Your task to perform on an android device: Go to accessibility settings Image 0: 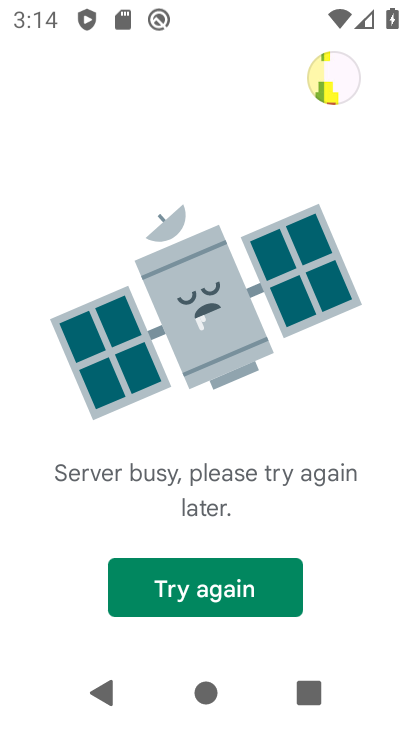
Step 0: press home button
Your task to perform on an android device: Go to accessibility settings Image 1: 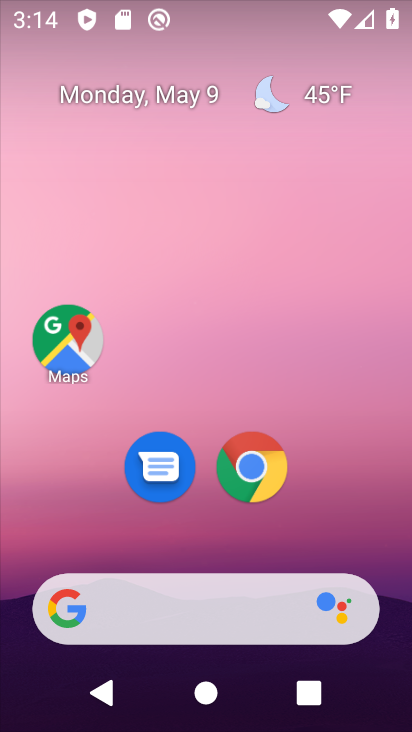
Step 1: drag from (336, 506) to (344, 138)
Your task to perform on an android device: Go to accessibility settings Image 2: 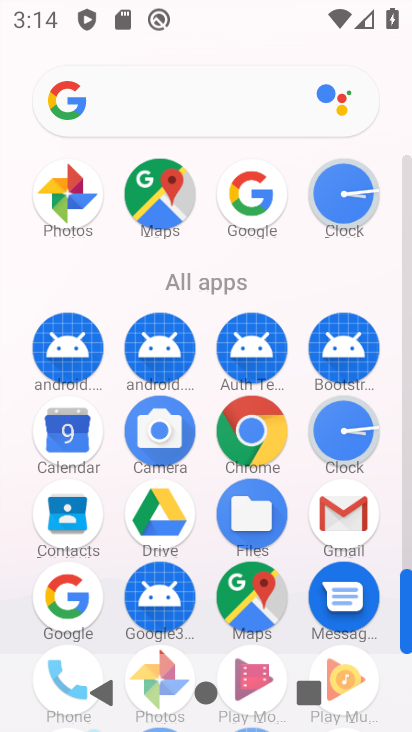
Step 2: drag from (300, 579) to (358, 33)
Your task to perform on an android device: Go to accessibility settings Image 3: 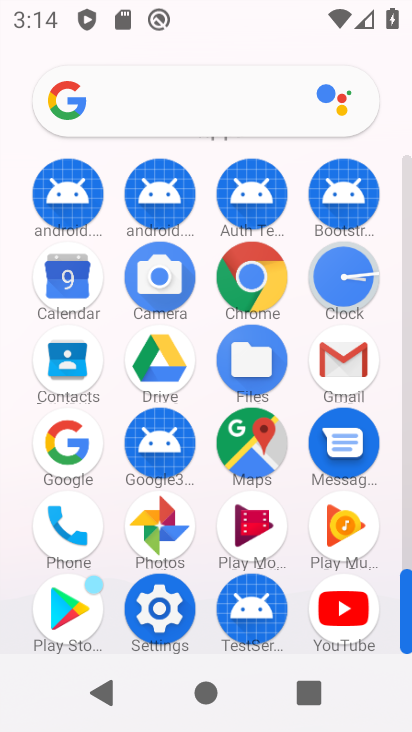
Step 3: click (169, 612)
Your task to perform on an android device: Go to accessibility settings Image 4: 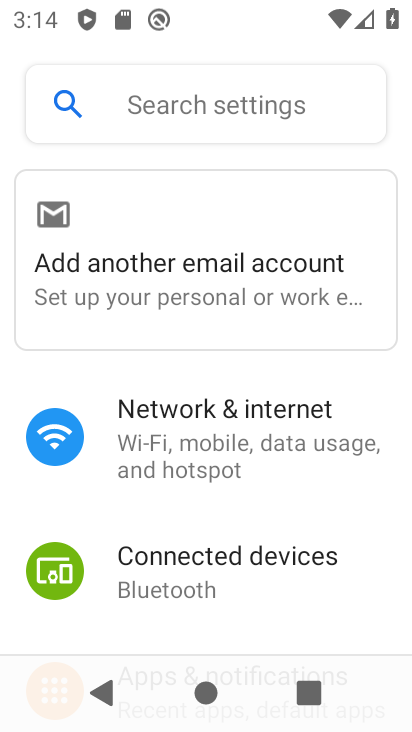
Step 4: drag from (245, 568) to (294, 267)
Your task to perform on an android device: Go to accessibility settings Image 5: 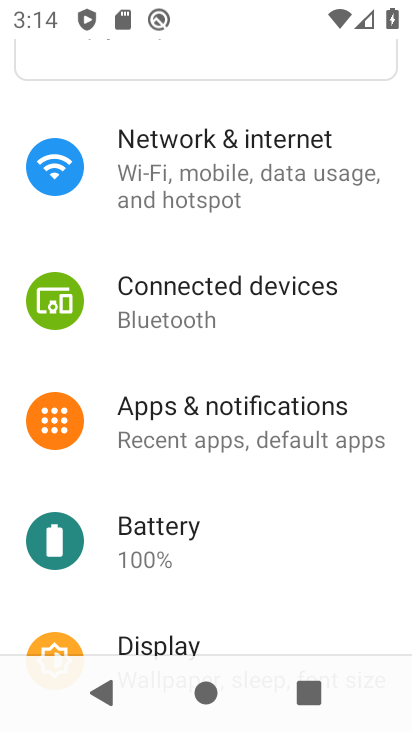
Step 5: drag from (259, 552) to (308, 301)
Your task to perform on an android device: Go to accessibility settings Image 6: 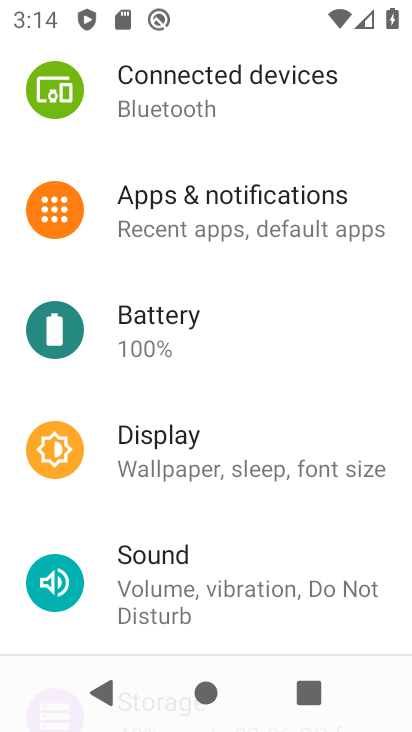
Step 6: drag from (290, 597) to (333, 325)
Your task to perform on an android device: Go to accessibility settings Image 7: 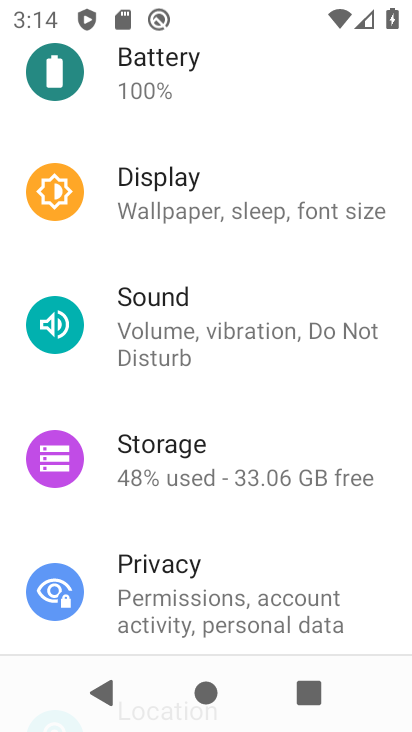
Step 7: drag from (231, 623) to (255, 228)
Your task to perform on an android device: Go to accessibility settings Image 8: 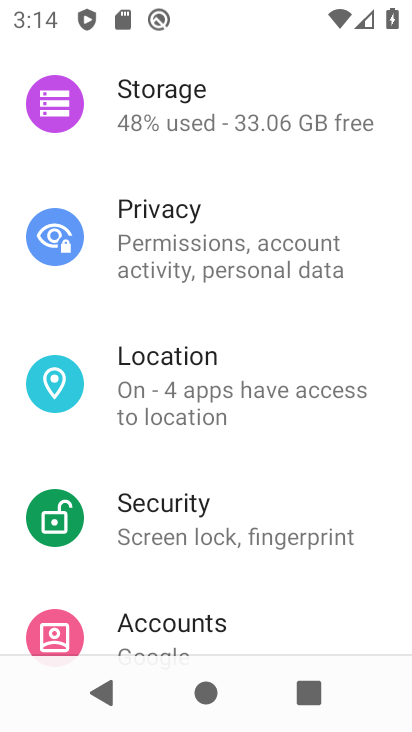
Step 8: drag from (251, 570) to (286, 377)
Your task to perform on an android device: Go to accessibility settings Image 9: 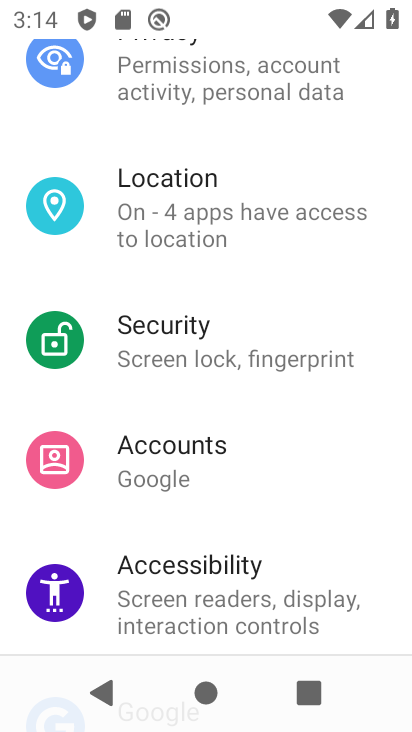
Step 9: click (286, 611)
Your task to perform on an android device: Go to accessibility settings Image 10: 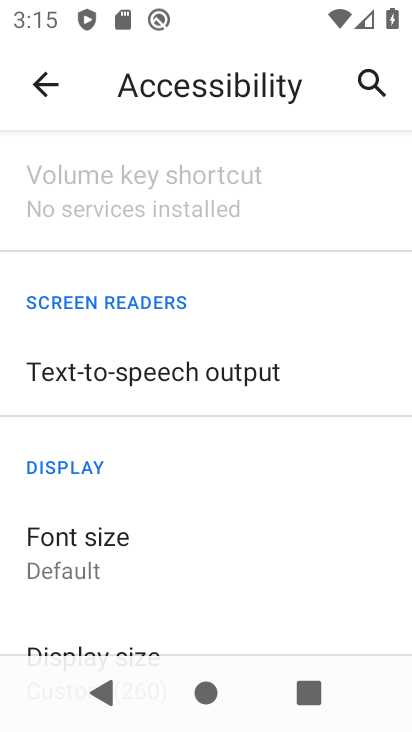
Step 10: task complete